Your task to perform on an android device: check storage Image 0: 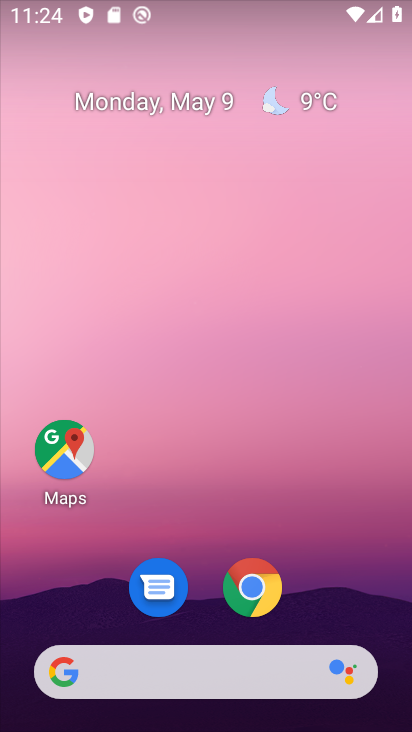
Step 0: drag from (208, 623) to (80, 201)
Your task to perform on an android device: check storage Image 1: 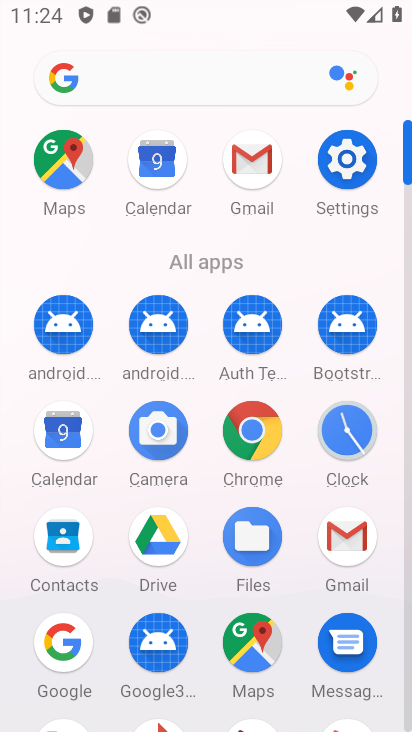
Step 1: click (340, 156)
Your task to perform on an android device: check storage Image 2: 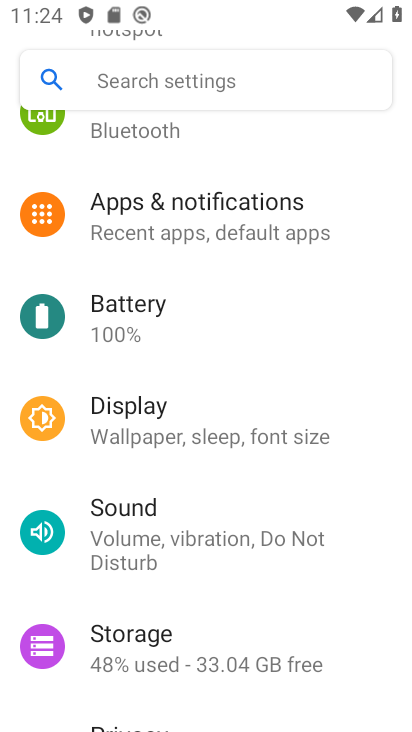
Step 2: click (211, 663)
Your task to perform on an android device: check storage Image 3: 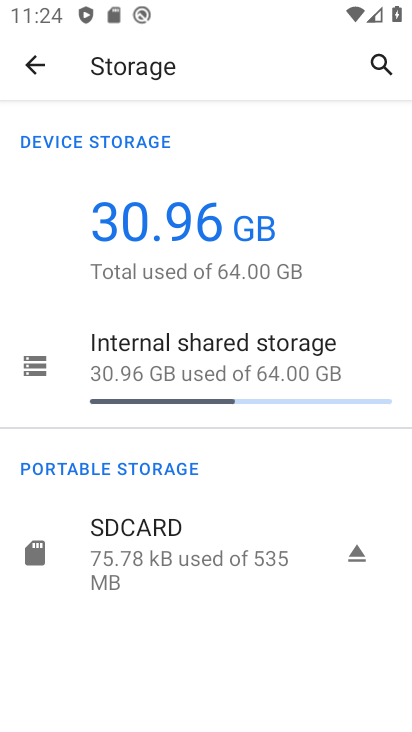
Step 3: task complete